Your task to perform on an android device: turn on notifications settings in the gmail app Image 0: 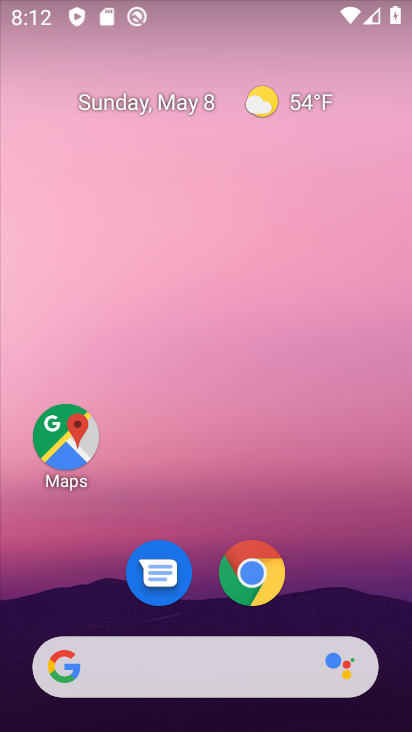
Step 0: drag from (249, 683) to (241, 141)
Your task to perform on an android device: turn on notifications settings in the gmail app Image 1: 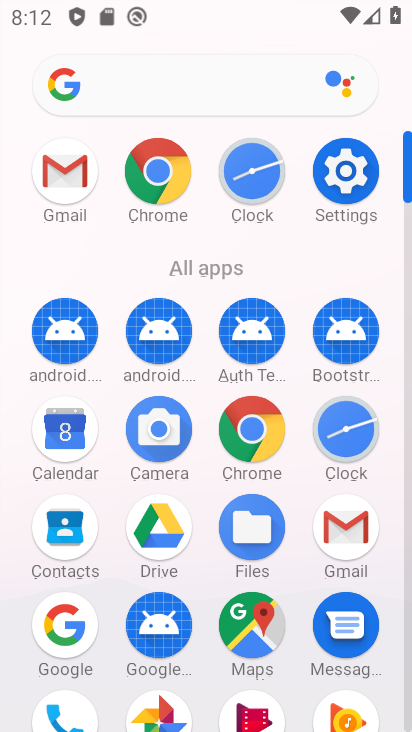
Step 1: click (341, 530)
Your task to perform on an android device: turn on notifications settings in the gmail app Image 2: 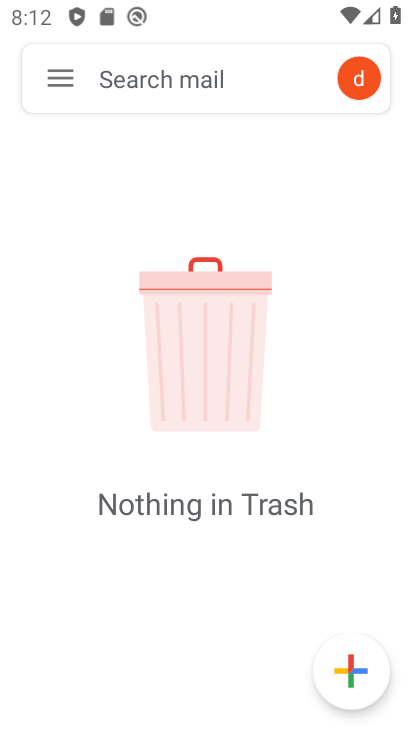
Step 2: click (51, 78)
Your task to perform on an android device: turn on notifications settings in the gmail app Image 3: 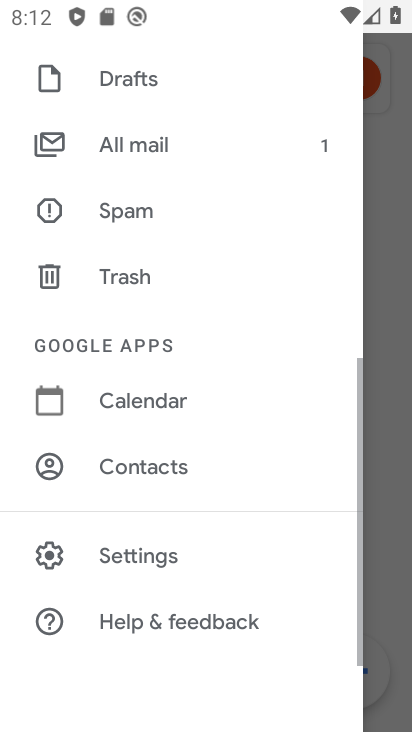
Step 3: click (143, 550)
Your task to perform on an android device: turn on notifications settings in the gmail app Image 4: 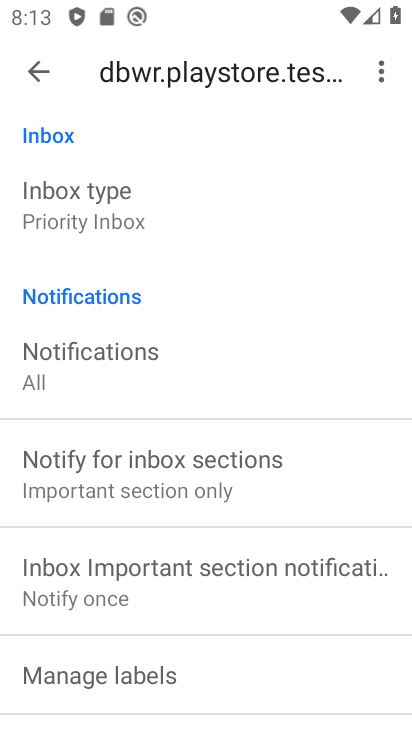
Step 4: task complete